Your task to perform on an android device: What's on my calendar tomorrow? Image 0: 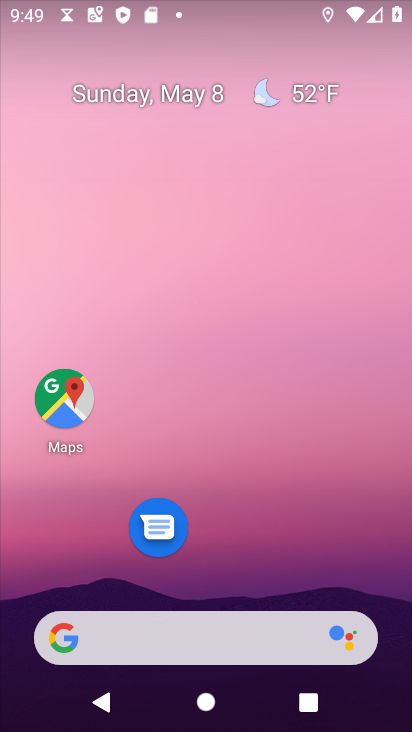
Step 0: drag from (273, 220) to (244, 9)
Your task to perform on an android device: What's on my calendar tomorrow? Image 1: 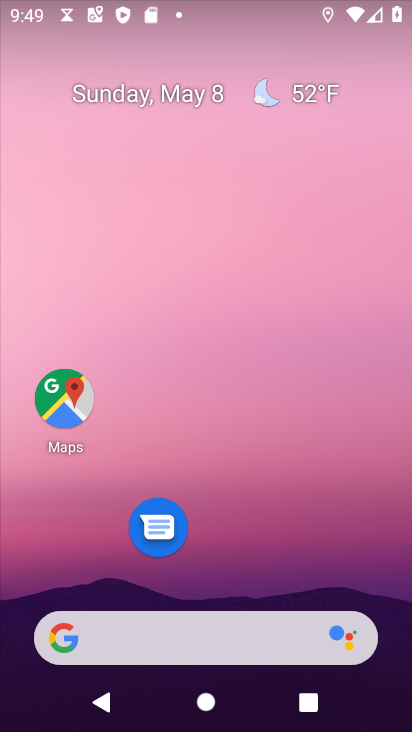
Step 1: drag from (223, 493) to (197, 43)
Your task to perform on an android device: What's on my calendar tomorrow? Image 2: 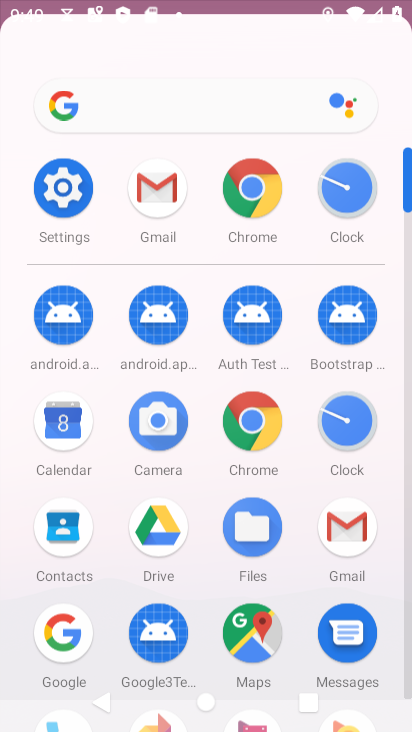
Step 2: drag from (283, 455) to (244, 39)
Your task to perform on an android device: What's on my calendar tomorrow? Image 3: 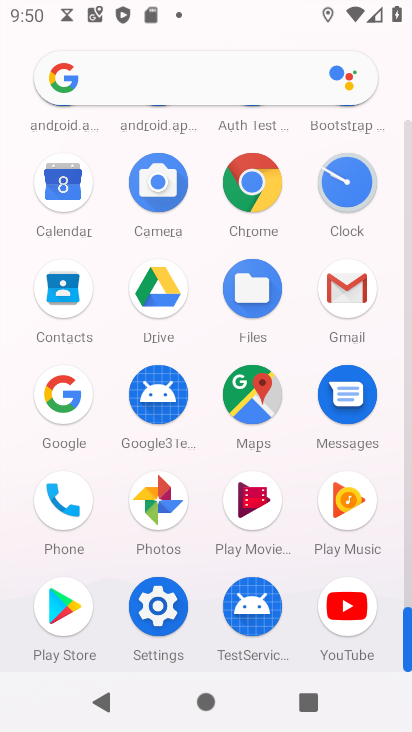
Step 3: click (64, 183)
Your task to perform on an android device: What's on my calendar tomorrow? Image 4: 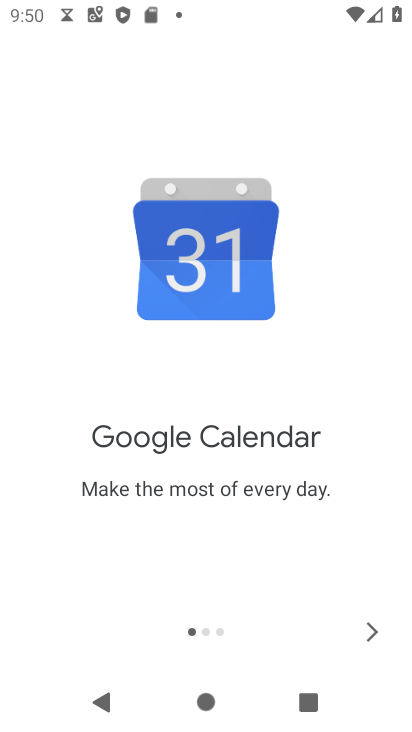
Step 4: click (375, 633)
Your task to perform on an android device: What's on my calendar tomorrow? Image 5: 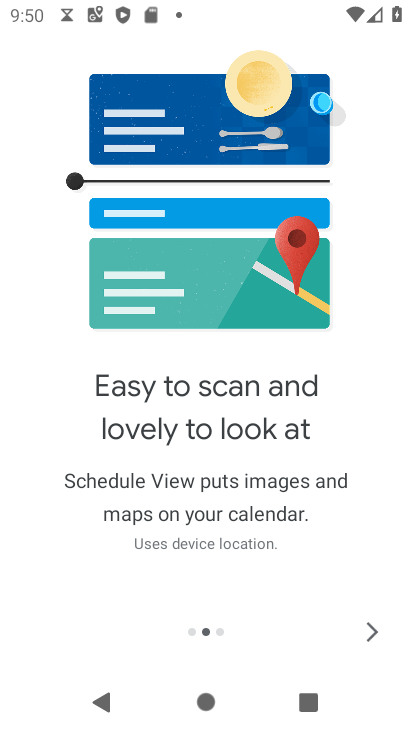
Step 5: click (375, 633)
Your task to perform on an android device: What's on my calendar tomorrow? Image 6: 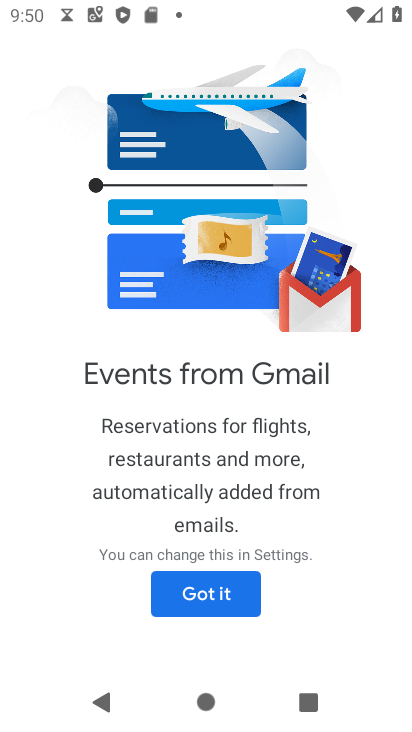
Step 6: click (232, 594)
Your task to perform on an android device: What's on my calendar tomorrow? Image 7: 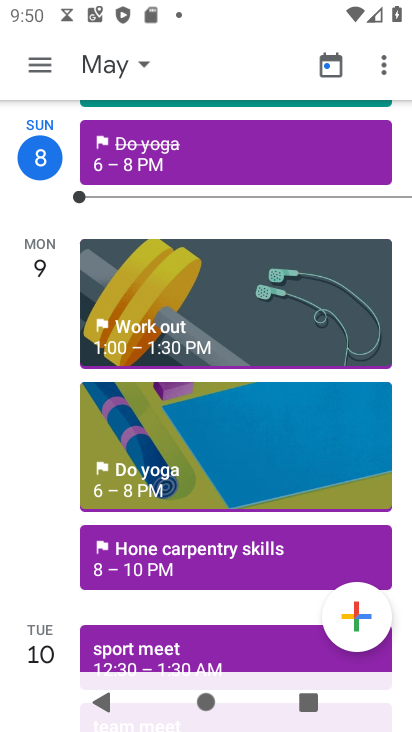
Step 7: click (143, 61)
Your task to perform on an android device: What's on my calendar tomorrow? Image 8: 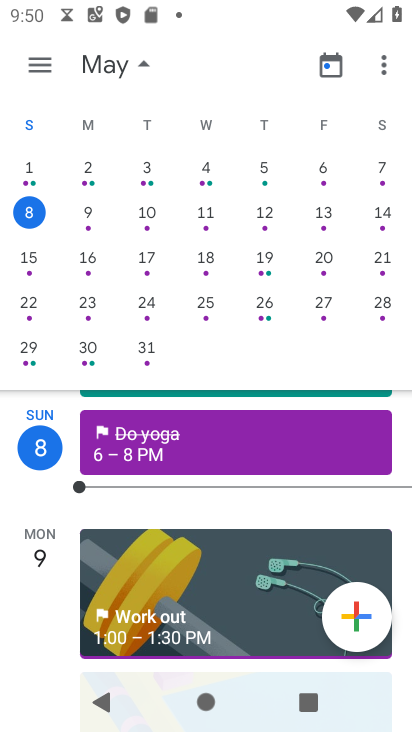
Step 8: click (82, 206)
Your task to perform on an android device: What's on my calendar tomorrow? Image 9: 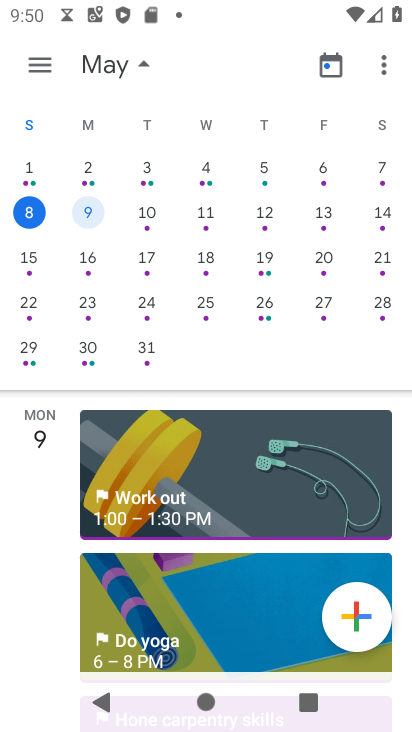
Step 9: click (217, 606)
Your task to perform on an android device: What's on my calendar tomorrow? Image 10: 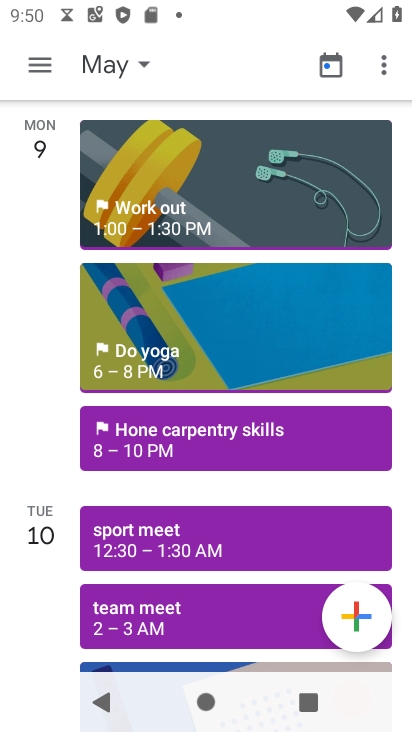
Step 10: task complete